Your task to perform on an android device: Open the web browser Image 0: 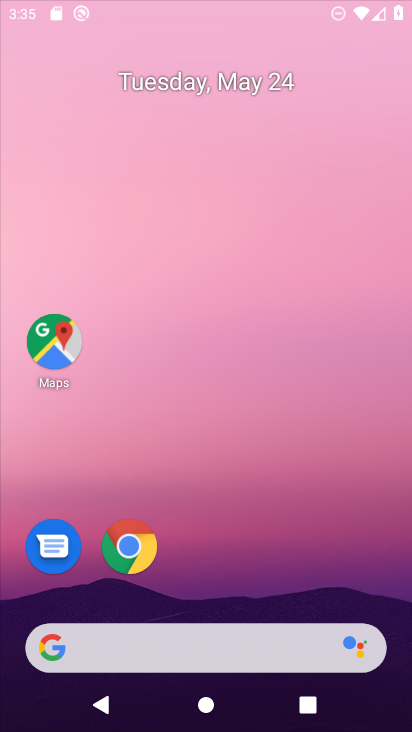
Step 0: drag from (198, 157) to (189, 101)
Your task to perform on an android device: Open the web browser Image 1: 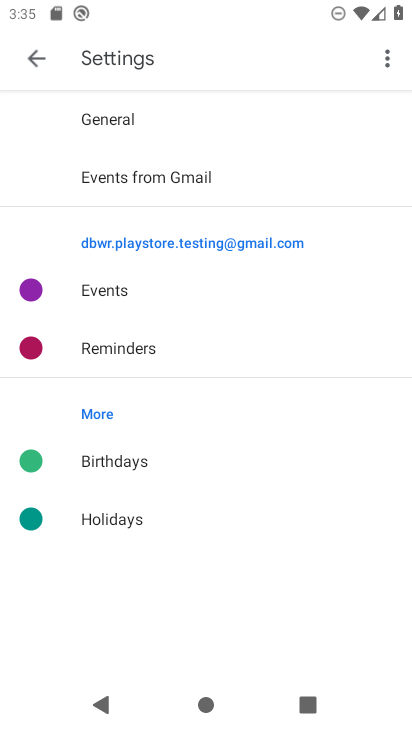
Step 1: press home button
Your task to perform on an android device: Open the web browser Image 2: 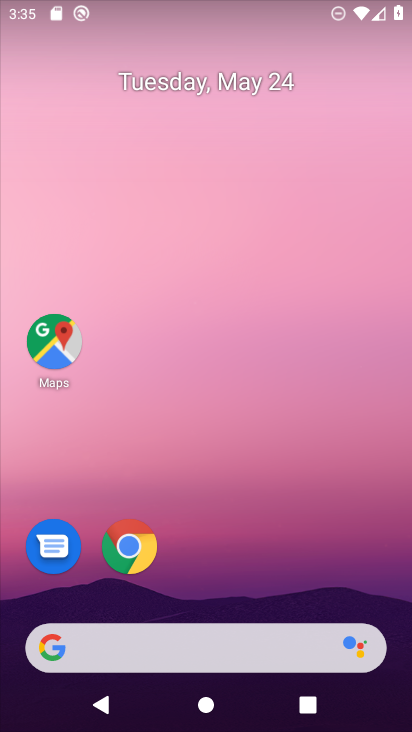
Step 2: click (122, 548)
Your task to perform on an android device: Open the web browser Image 3: 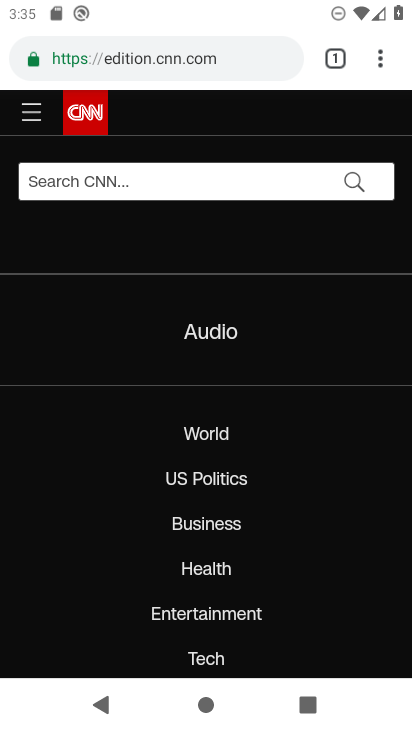
Step 3: task complete